Your task to perform on an android device: Open Youtube and go to "Your channel" Image 0: 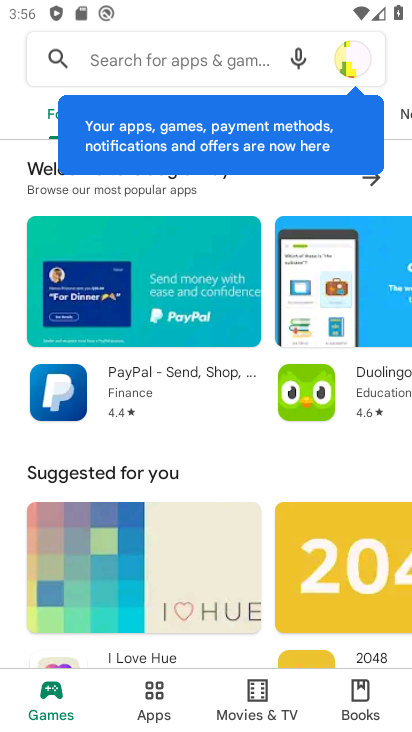
Step 0: press home button
Your task to perform on an android device: Open Youtube and go to "Your channel" Image 1: 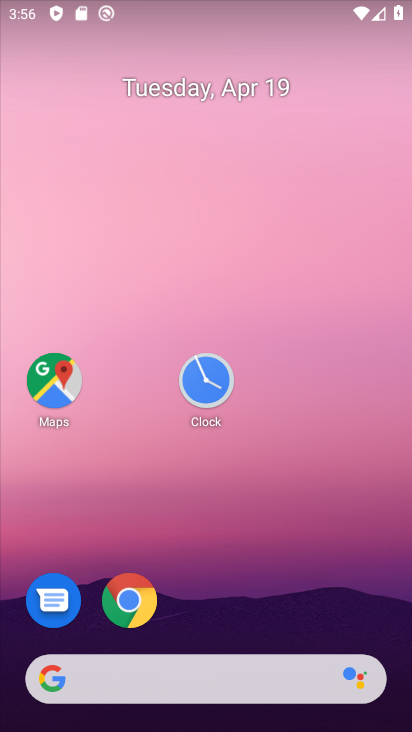
Step 1: drag from (216, 447) to (173, 232)
Your task to perform on an android device: Open Youtube and go to "Your channel" Image 2: 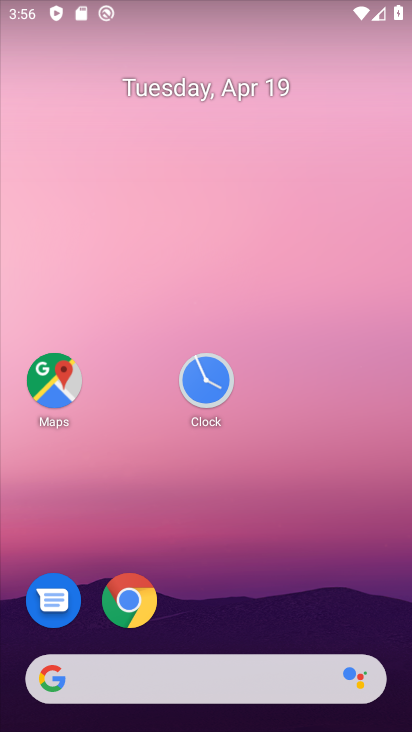
Step 2: drag from (253, 618) to (214, 197)
Your task to perform on an android device: Open Youtube and go to "Your channel" Image 3: 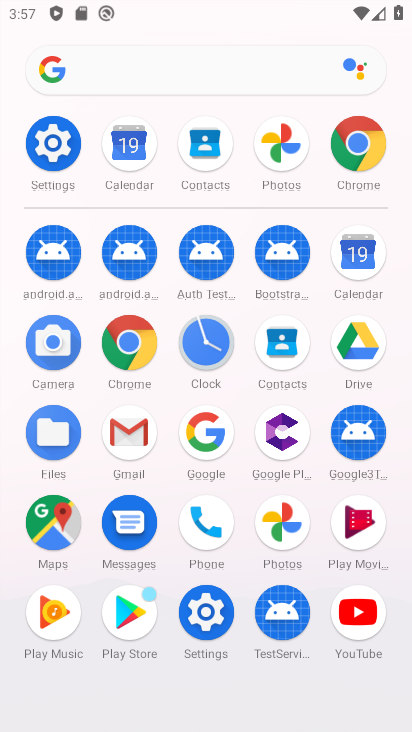
Step 3: click (355, 617)
Your task to perform on an android device: Open Youtube and go to "Your channel" Image 4: 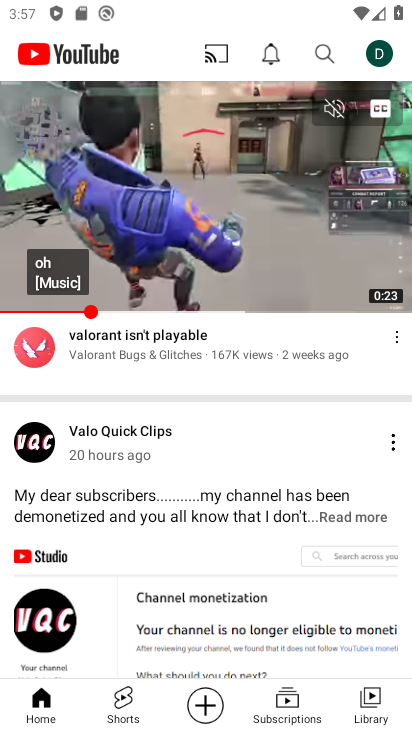
Step 4: click (214, 55)
Your task to perform on an android device: Open Youtube and go to "Your channel" Image 5: 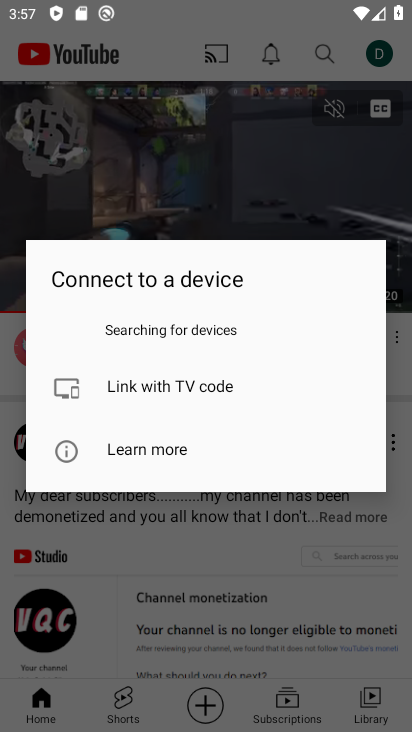
Step 5: click (218, 182)
Your task to perform on an android device: Open Youtube and go to "Your channel" Image 6: 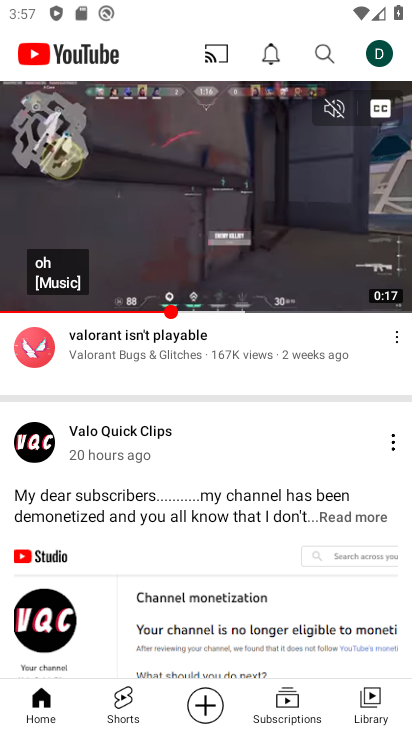
Step 6: click (253, 219)
Your task to perform on an android device: Open Youtube and go to "Your channel" Image 7: 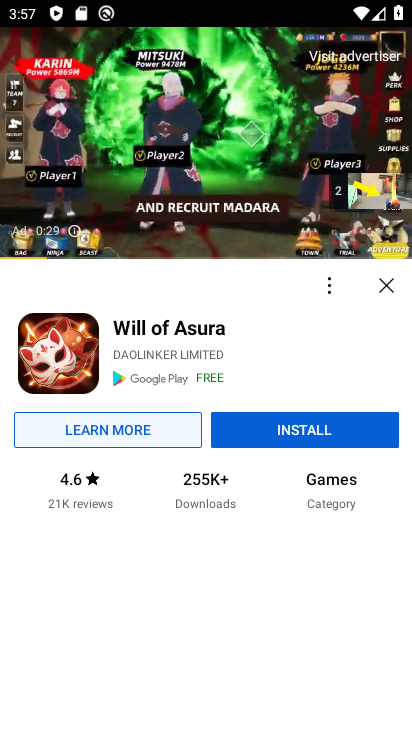
Step 7: drag from (197, 488) to (180, 286)
Your task to perform on an android device: Open Youtube and go to "Your channel" Image 8: 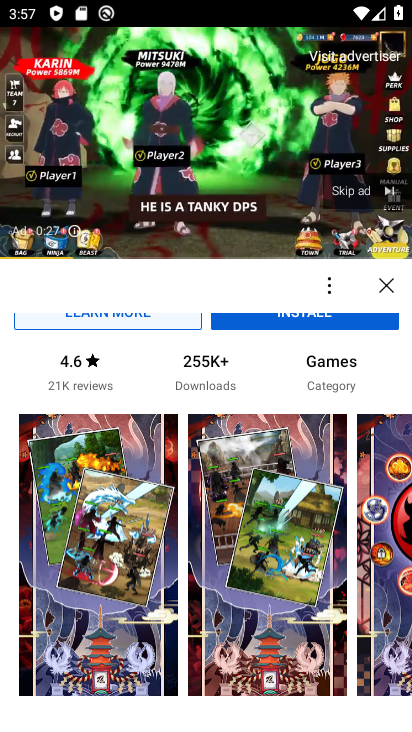
Step 8: drag from (198, 478) to (161, 233)
Your task to perform on an android device: Open Youtube and go to "Your channel" Image 9: 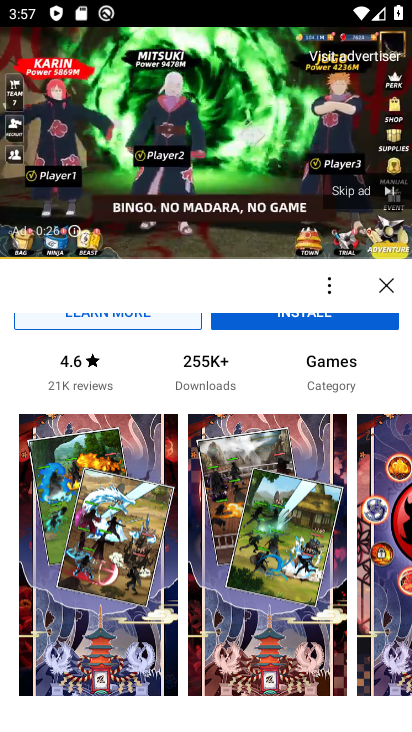
Step 9: click (175, 257)
Your task to perform on an android device: Open Youtube and go to "Your channel" Image 10: 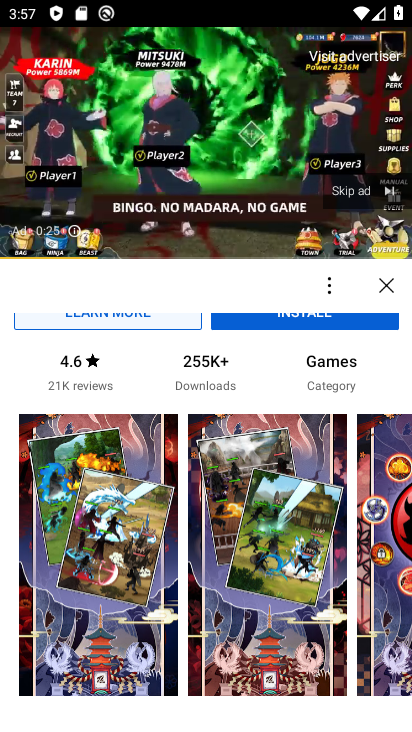
Step 10: task complete